Your task to perform on an android device: Turn on the flashlight Image 0: 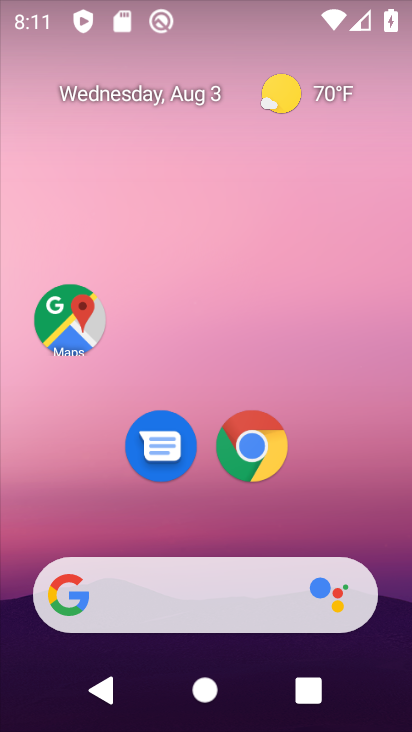
Step 0: drag from (397, 703) to (327, 31)
Your task to perform on an android device: Turn on the flashlight Image 1: 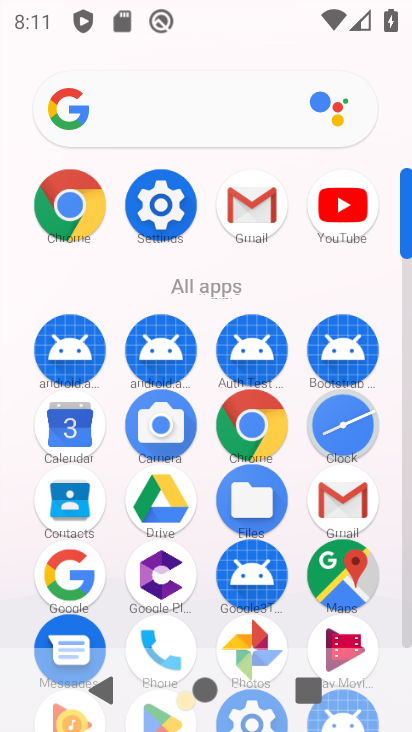
Step 1: click (168, 213)
Your task to perform on an android device: Turn on the flashlight Image 2: 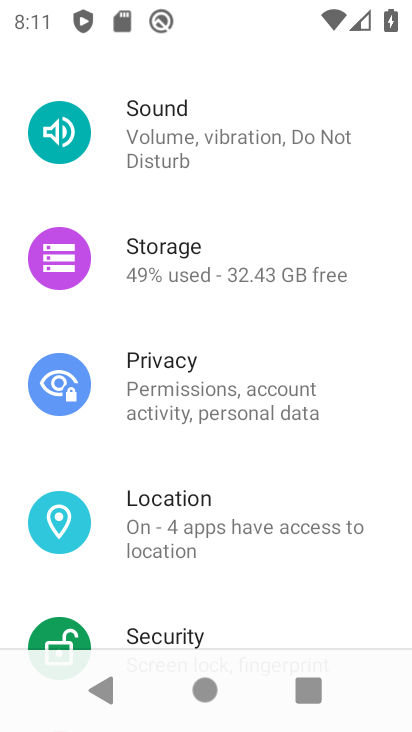
Step 2: drag from (320, 615) to (339, 166)
Your task to perform on an android device: Turn on the flashlight Image 3: 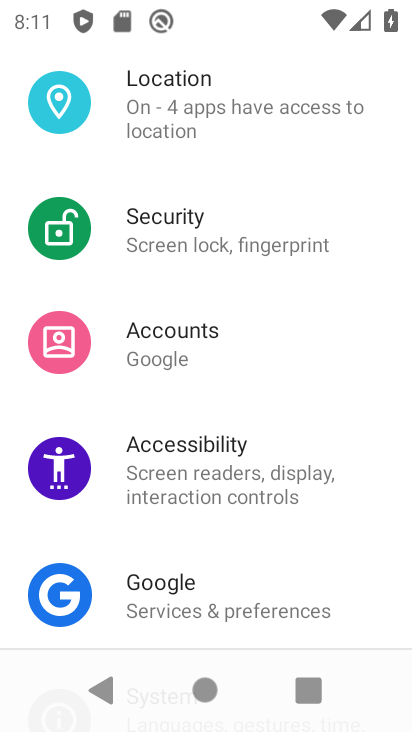
Step 3: drag from (282, 127) to (299, 624)
Your task to perform on an android device: Turn on the flashlight Image 4: 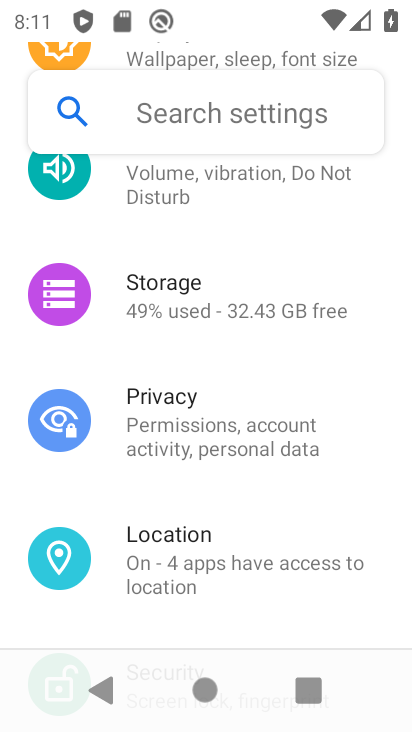
Step 4: drag from (303, 206) to (265, 485)
Your task to perform on an android device: Turn on the flashlight Image 5: 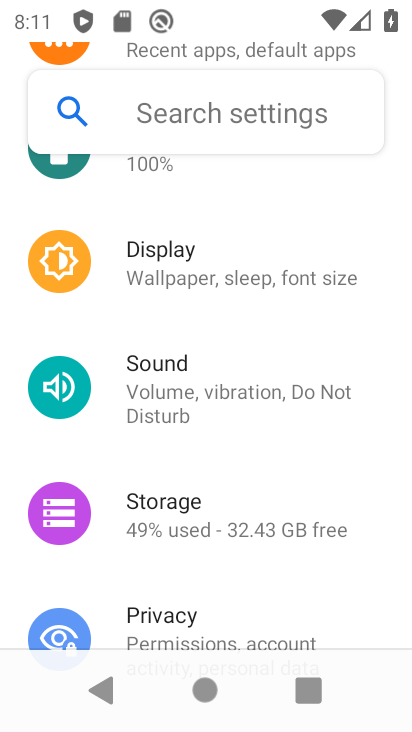
Step 5: click (179, 366)
Your task to perform on an android device: Turn on the flashlight Image 6: 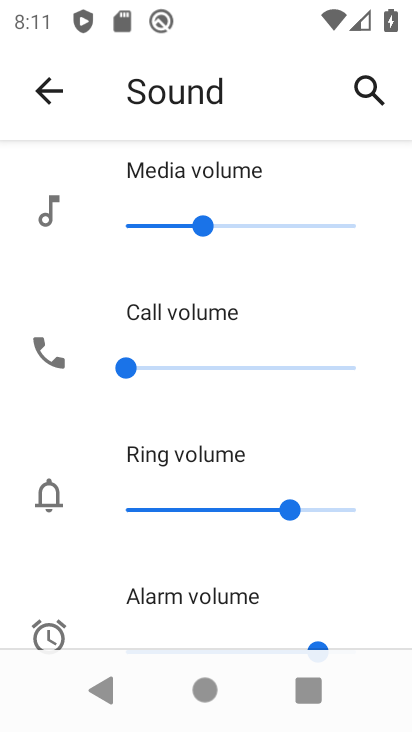
Step 6: task complete